Your task to perform on an android device: Open the map Image 0: 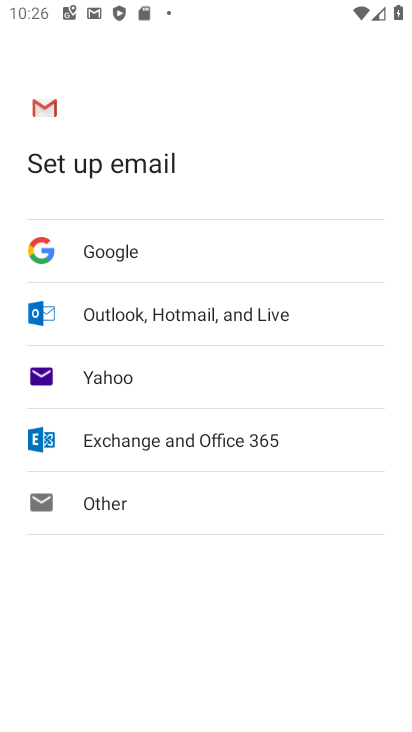
Step 0: press back button
Your task to perform on an android device: Open the map Image 1: 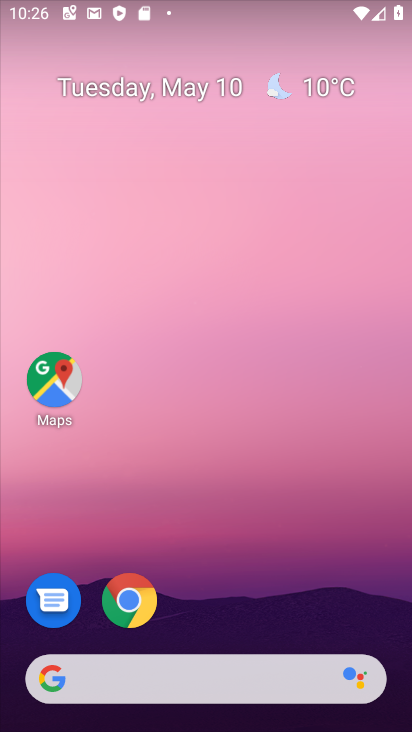
Step 1: drag from (206, 493) to (219, 14)
Your task to perform on an android device: Open the map Image 2: 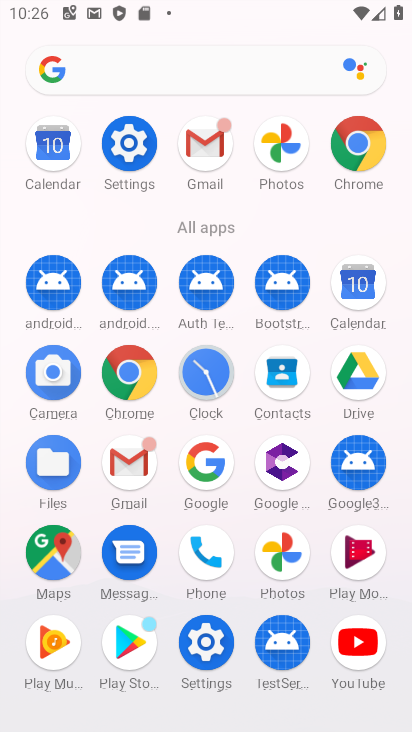
Step 2: drag from (7, 545) to (11, 255)
Your task to perform on an android device: Open the map Image 3: 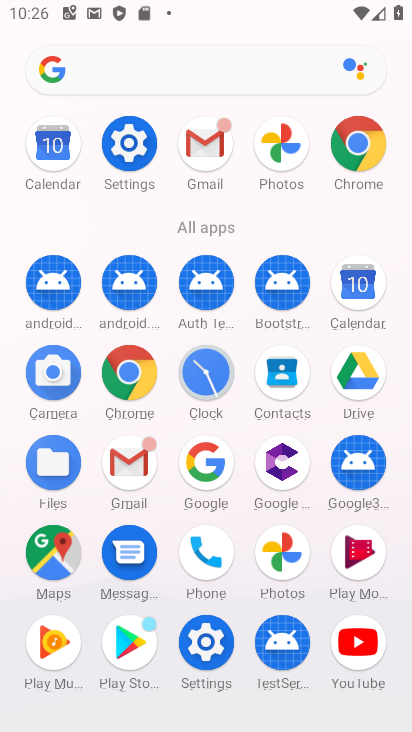
Step 3: click (53, 546)
Your task to perform on an android device: Open the map Image 4: 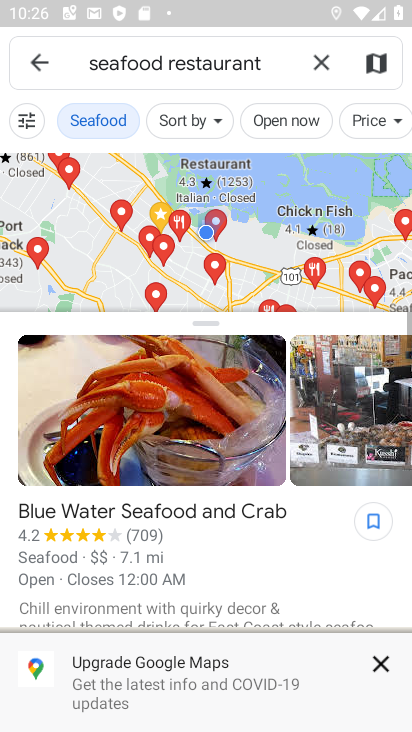
Step 4: click (33, 67)
Your task to perform on an android device: Open the map Image 5: 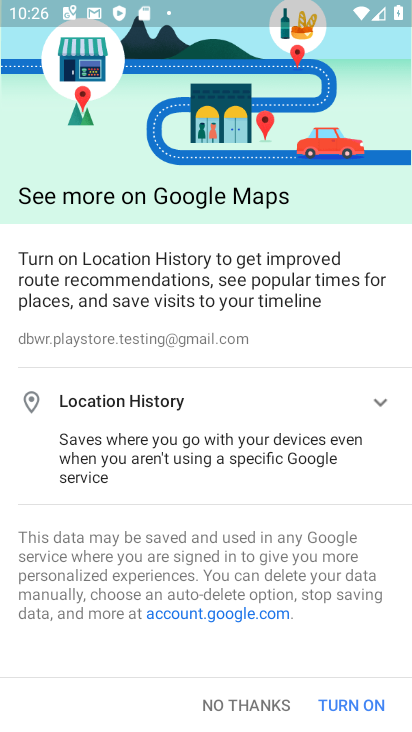
Step 5: click (348, 704)
Your task to perform on an android device: Open the map Image 6: 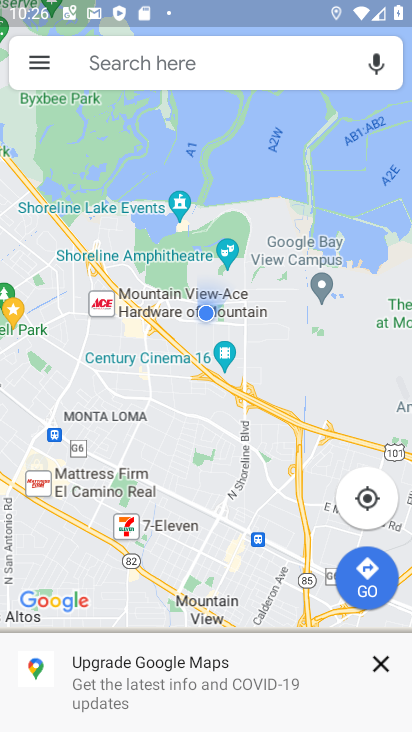
Step 6: task complete